Your task to perform on an android device: Open Chrome and go to settings Image 0: 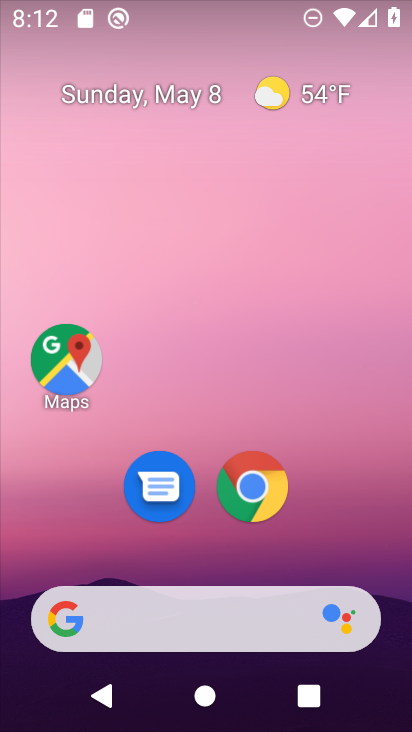
Step 0: click (260, 483)
Your task to perform on an android device: Open Chrome and go to settings Image 1: 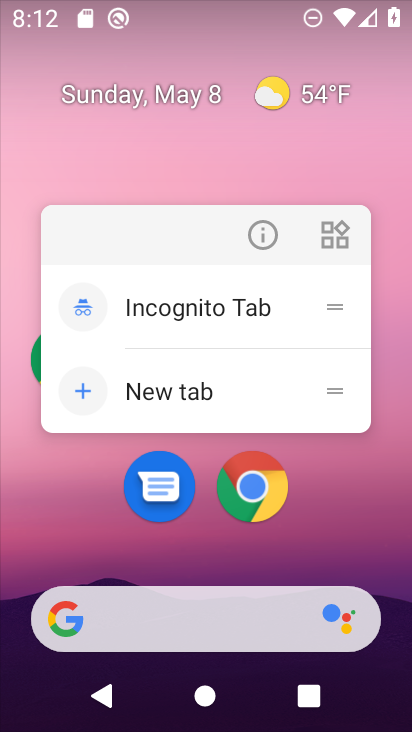
Step 1: click (266, 243)
Your task to perform on an android device: Open Chrome and go to settings Image 2: 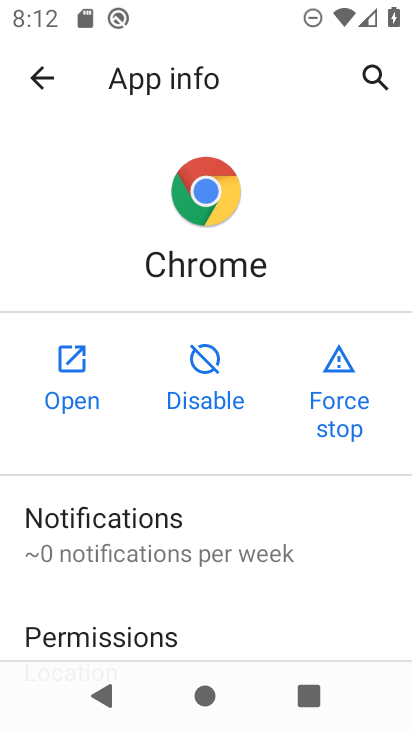
Step 2: click (60, 375)
Your task to perform on an android device: Open Chrome and go to settings Image 3: 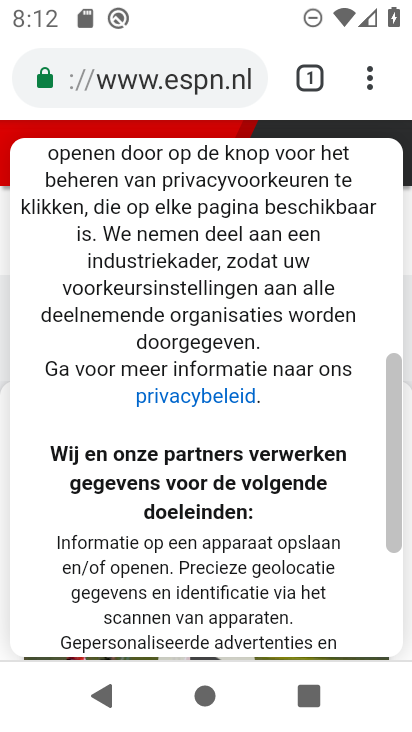
Step 3: click (370, 82)
Your task to perform on an android device: Open Chrome and go to settings Image 4: 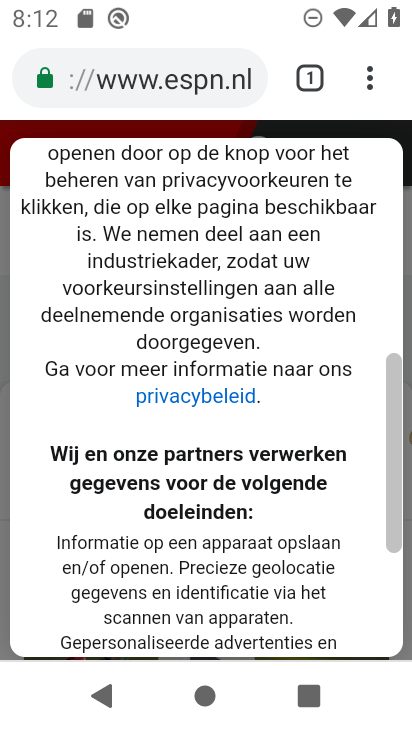
Step 4: click (370, 83)
Your task to perform on an android device: Open Chrome and go to settings Image 5: 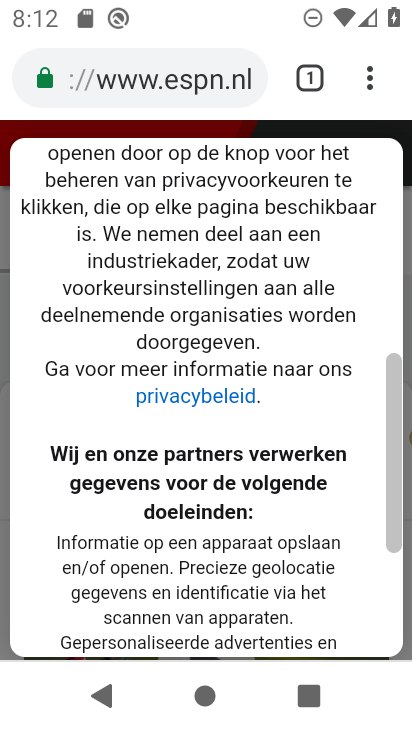
Step 5: click (370, 83)
Your task to perform on an android device: Open Chrome and go to settings Image 6: 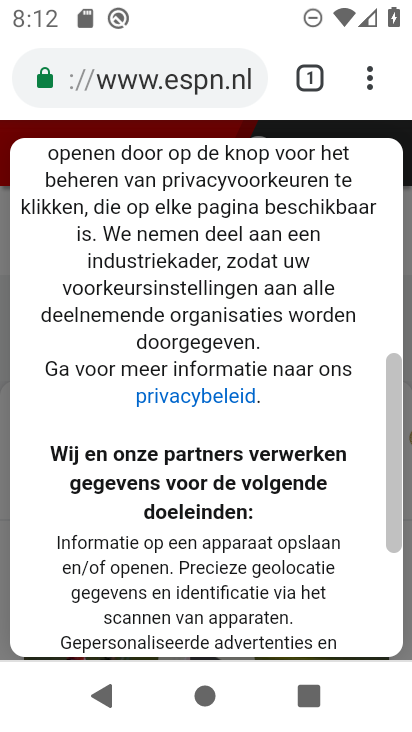
Step 6: click (369, 81)
Your task to perform on an android device: Open Chrome and go to settings Image 7: 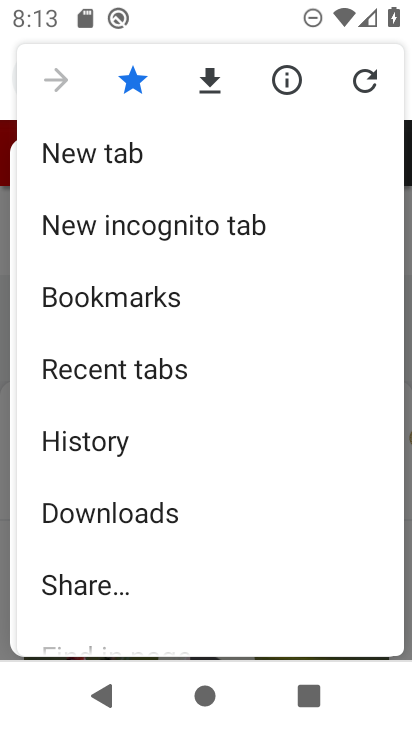
Step 7: drag from (187, 537) to (254, 172)
Your task to perform on an android device: Open Chrome and go to settings Image 8: 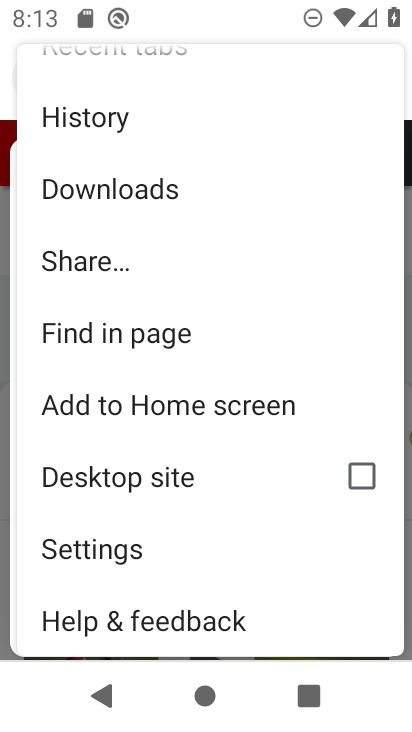
Step 8: click (119, 548)
Your task to perform on an android device: Open Chrome and go to settings Image 9: 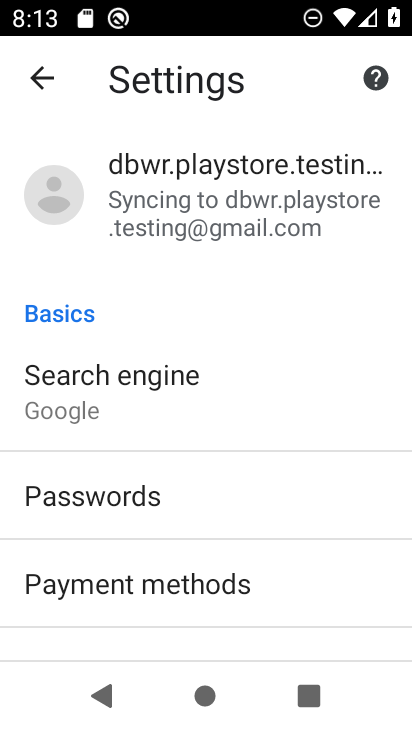
Step 9: task complete